Your task to perform on an android device: Go to Android settings Image 0: 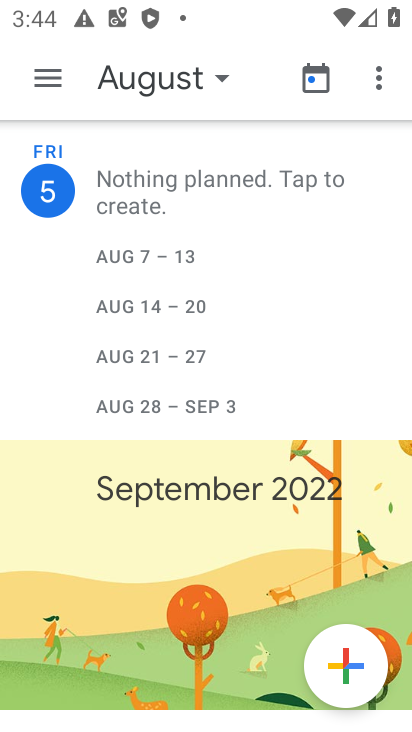
Step 0: press back button
Your task to perform on an android device: Go to Android settings Image 1: 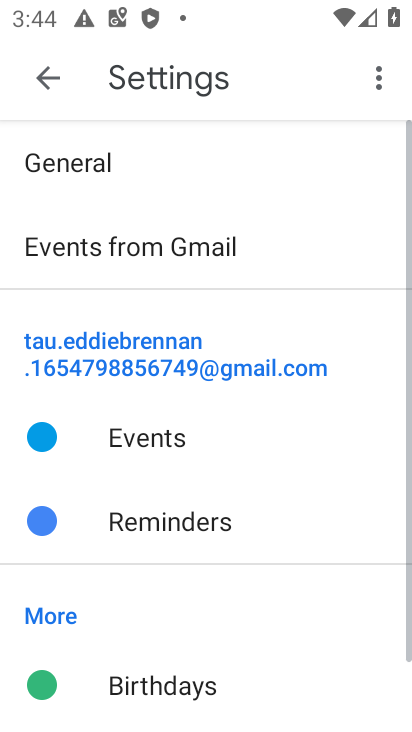
Step 1: drag from (209, 328) to (206, 268)
Your task to perform on an android device: Go to Android settings Image 2: 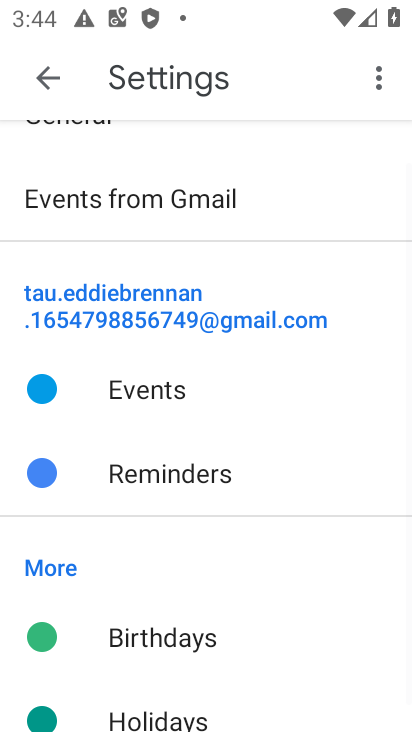
Step 2: click (50, 85)
Your task to perform on an android device: Go to Android settings Image 3: 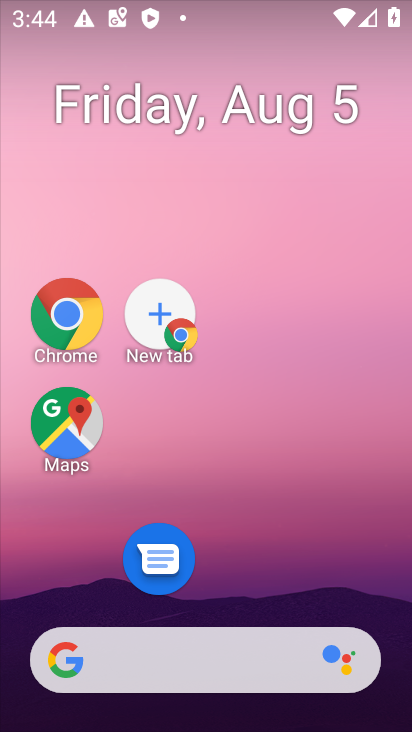
Step 3: drag from (176, 61) to (179, 107)
Your task to perform on an android device: Go to Android settings Image 4: 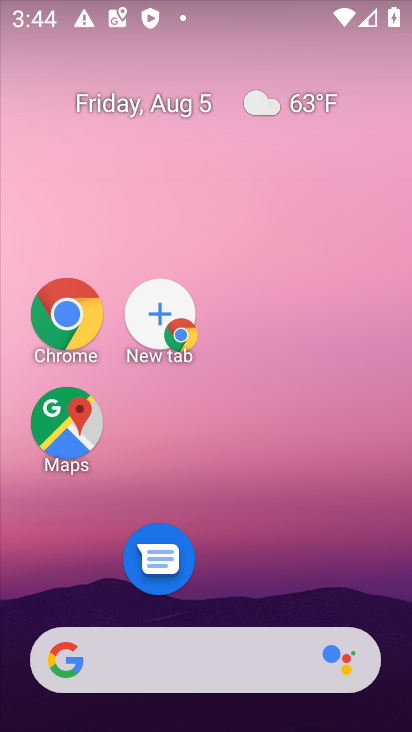
Step 4: drag from (140, 279) to (122, 151)
Your task to perform on an android device: Go to Android settings Image 5: 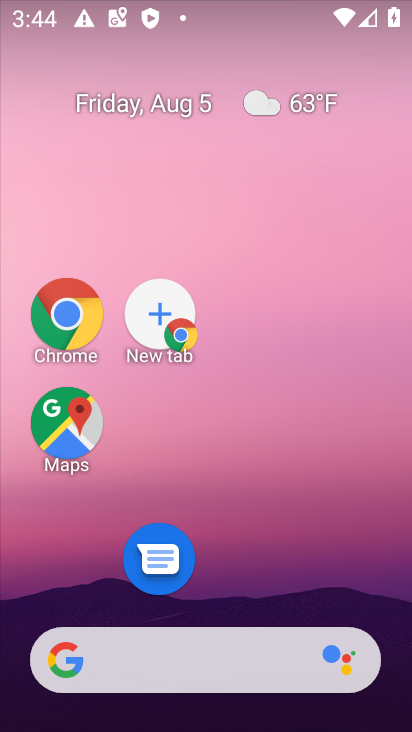
Step 5: drag from (150, 417) to (115, 184)
Your task to perform on an android device: Go to Android settings Image 6: 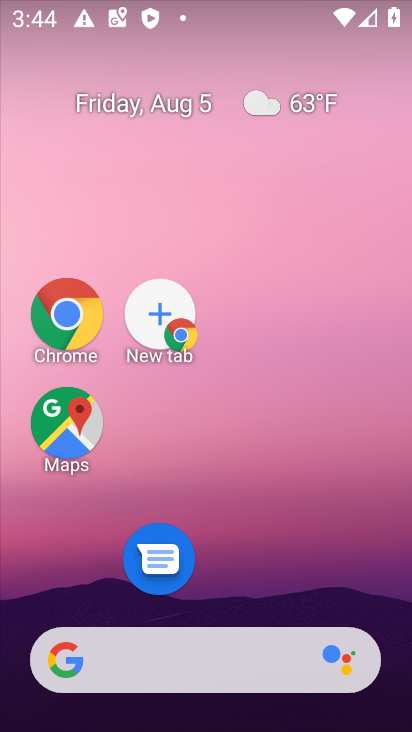
Step 6: drag from (275, 521) to (171, 161)
Your task to perform on an android device: Go to Android settings Image 7: 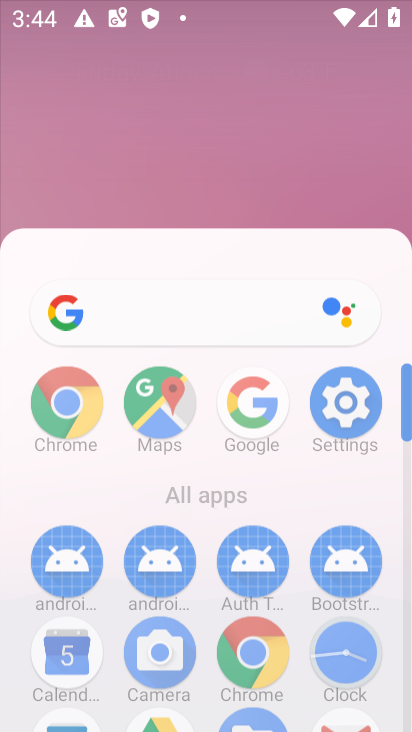
Step 7: drag from (223, 481) to (177, 21)
Your task to perform on an android device: Go to Android settings Image 8: 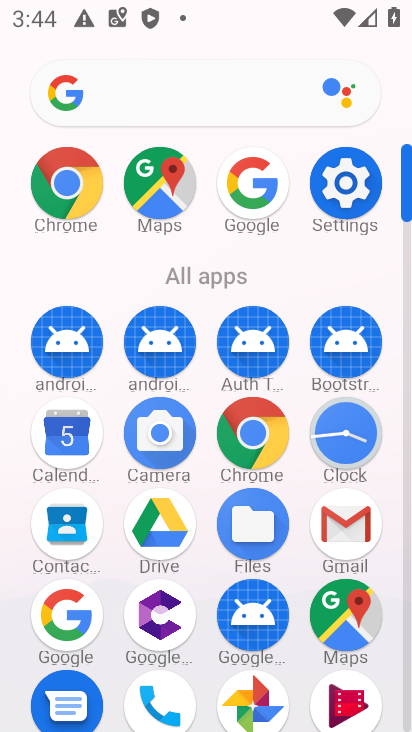
Step 8: click (320, 182)
Your task to perform on an android device: Go to Android settings Image 9: 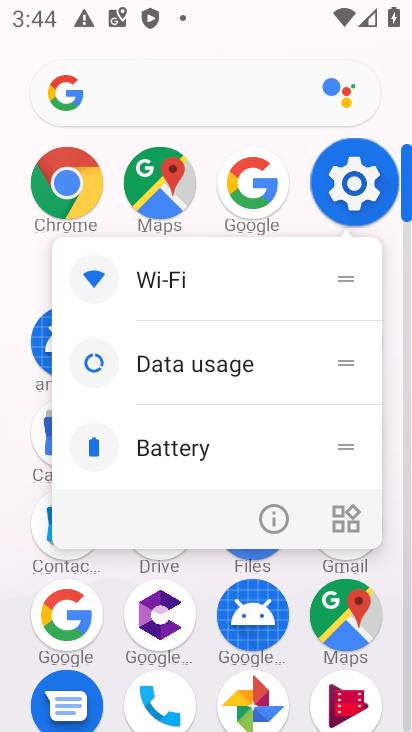
Step 9: click (332, 181)
Your task to perform on an android device: Go to Android settings Image 10: 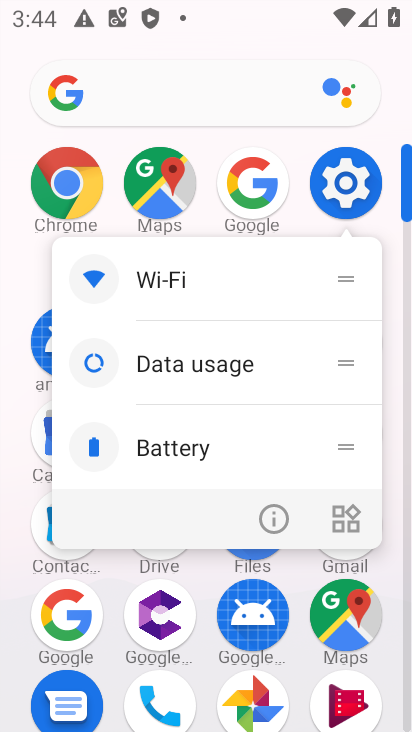
Step 10: click (358, 193)
Your task to perform on an android device: Go to Android settings Image 11: 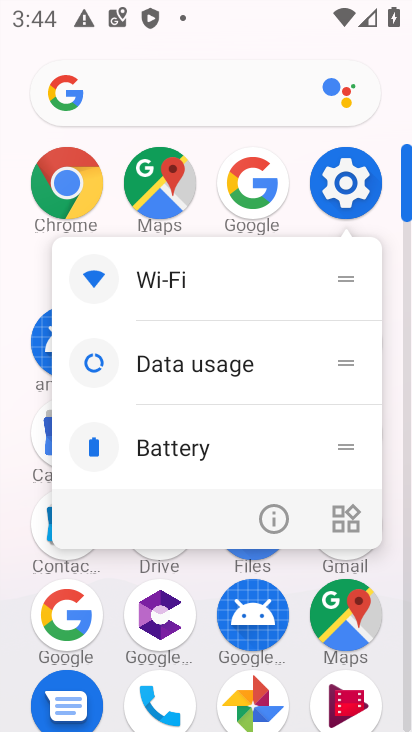
Step 11: click (328, 193)
Your task to perform on an android device: Go to Android settings Image 12: 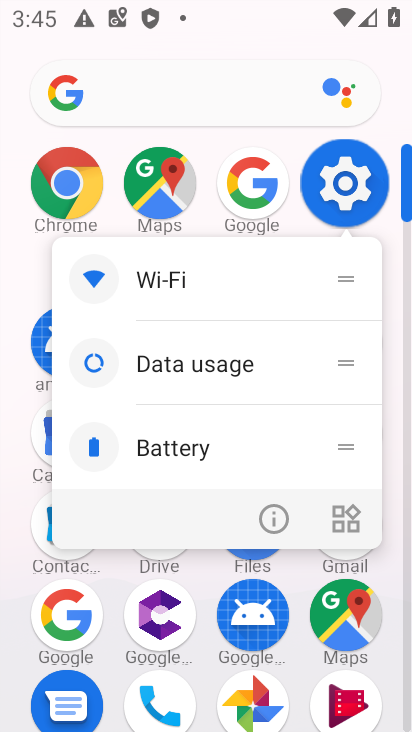
Step 12: click (336, 187)
Your task to perform on an android device: Go to Android settings Image 13: 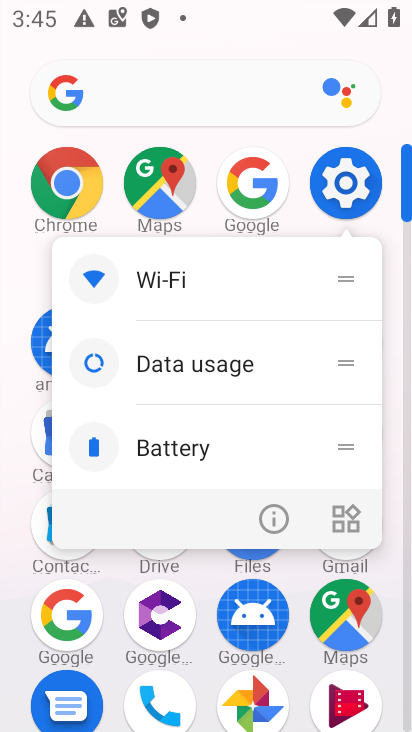
Step 13: click (182, 415)
Your task to perform on an android device: Go to Android settings Image 14: 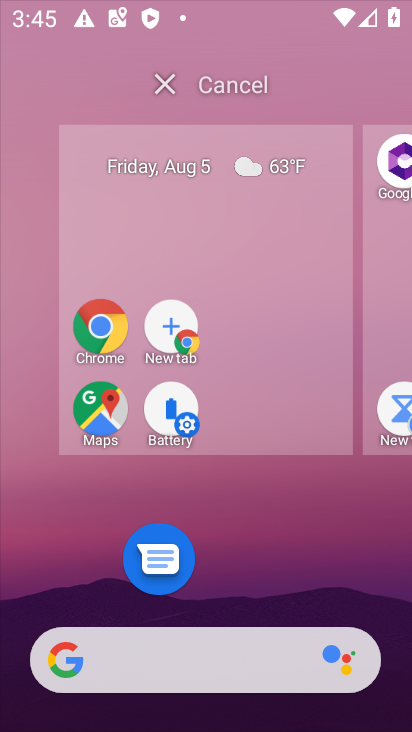
Step 14: drag from (221, 440) to (146, 229)
Your task to perform on an android device: Go to Android settings Image 15: 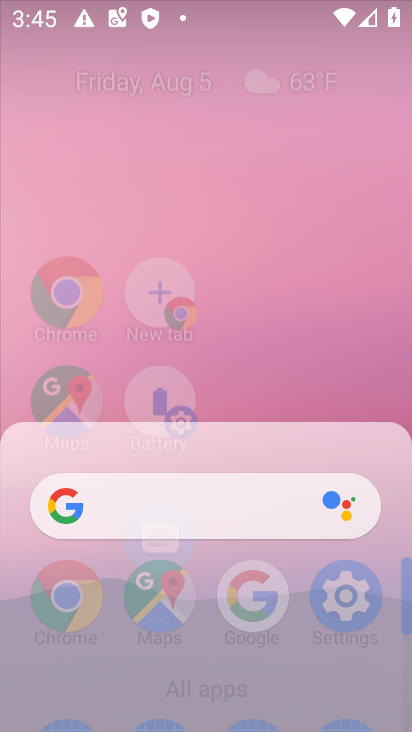
Step 15: drag from (237, 536) to (170, 93)
Your task to perform on an android device: Go to Android settings Image 16: 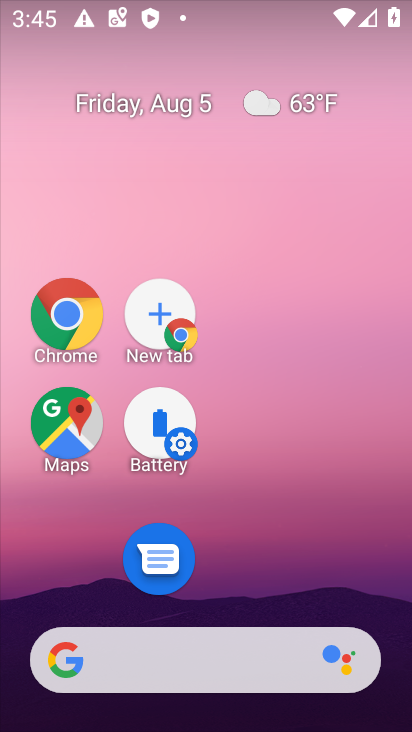
Step 16: drag from (314, 629) to (215, 148)
Your task to perform on an android device: Go to Android settings Image 17: 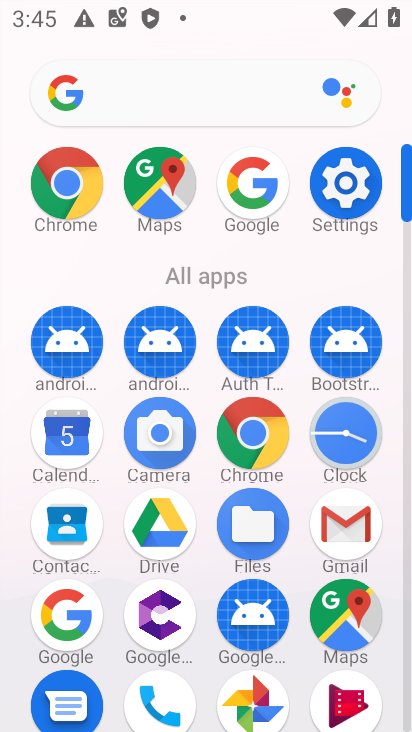
Step 17: click (339, 188)
Your task to perform on an android device: Go to Android settings Image 18: 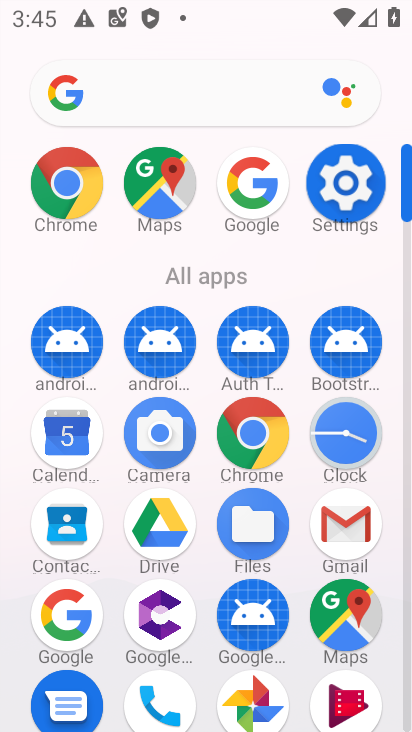
Step 18: click (339, 185)
Your task to perform on an android device: Go to Android settings Image 19: 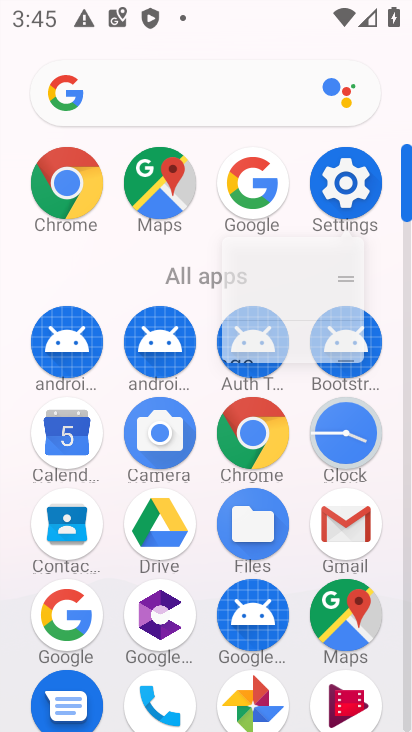
Step 19: click (339, 185)
Your task to perform on an android device: Go to Android settings Image 20: 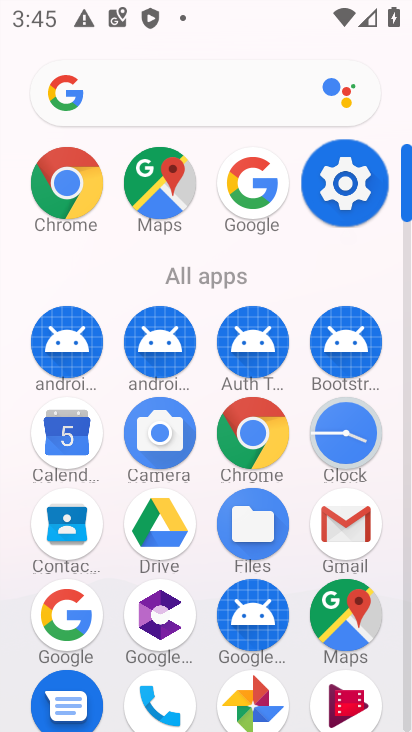
Step 20: click (340, 184)
Your task to perform on an android device: Go to Android settings Image 21: 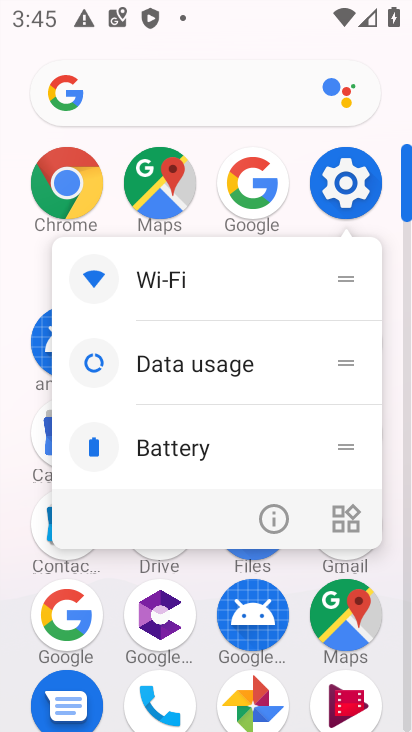
Step 21: click (175, 453)
Your task to perform on an android device: Go to Android settings Image 22: 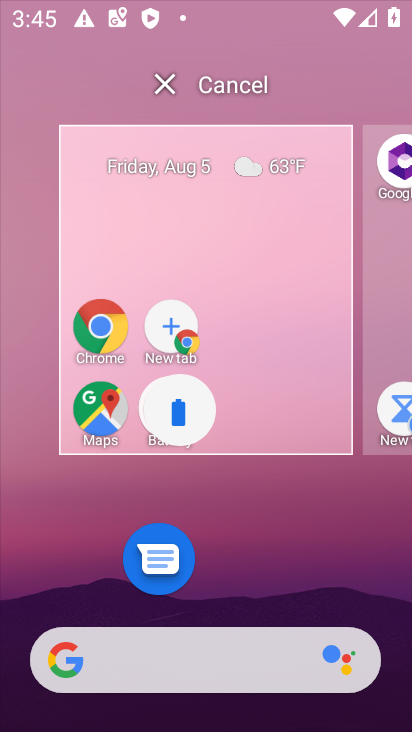
Step 22: task complete